Your task to perform on an android device: see sites visited before in the chrome app Image 0: 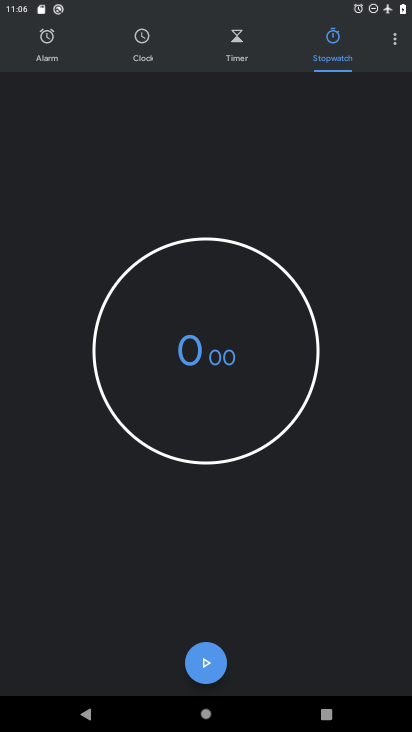
Step 0: press home button
Your task to perform on an android device: see sites visited before in the chrome app Image 1: 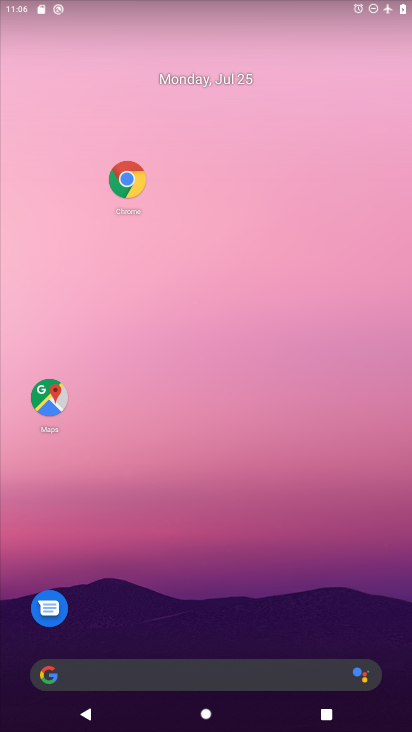
Step 1: drag from (149, 713) to (304, 52)
Your task to perform on an android device: see sites visited before in the chrome app Image 2: 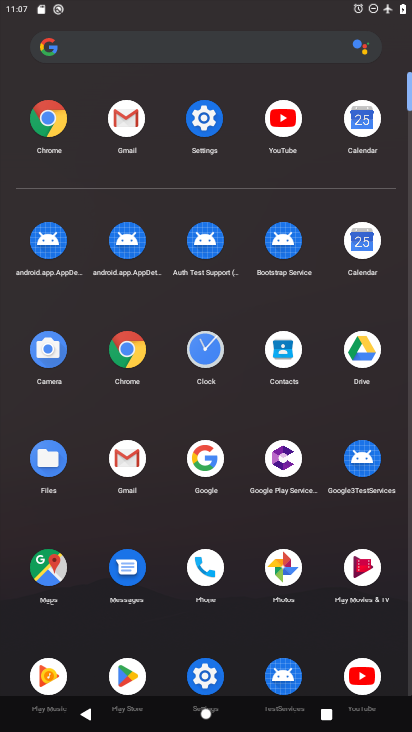
Step 2: click (63, 123)
Your task to perform on an android device: see sites visited before in the chrome app Image 3: 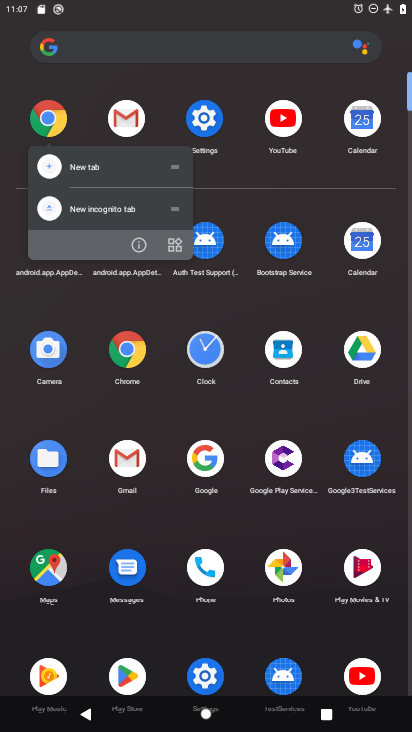
Step 3: click (63, 123)
Your task to perform on an android device: see sites visited before in the chrome app Image 4: 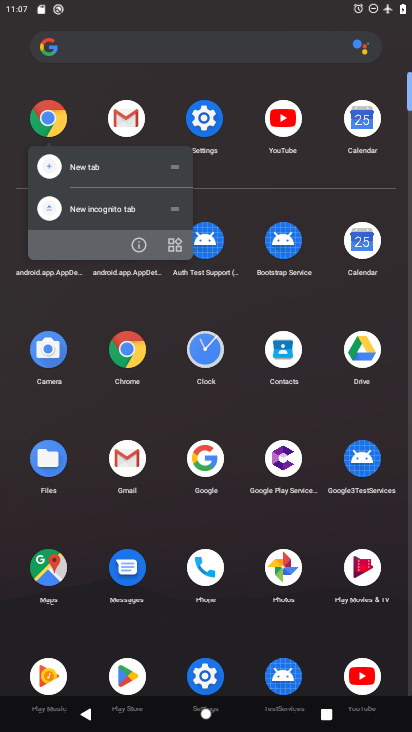
Step 4: click (63, 123)
Your task to perform on an android device: see sites visited before in the chrome app Image 5: 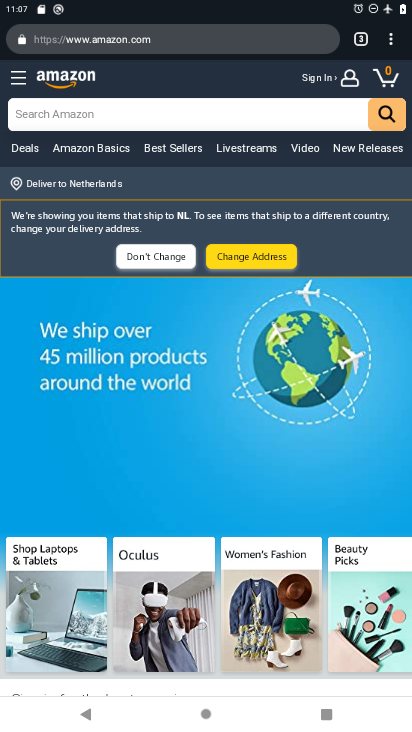
Step 5: click (393, 43)
Your task to perform on an android device: see sites visited before in the chrome app Image 6: 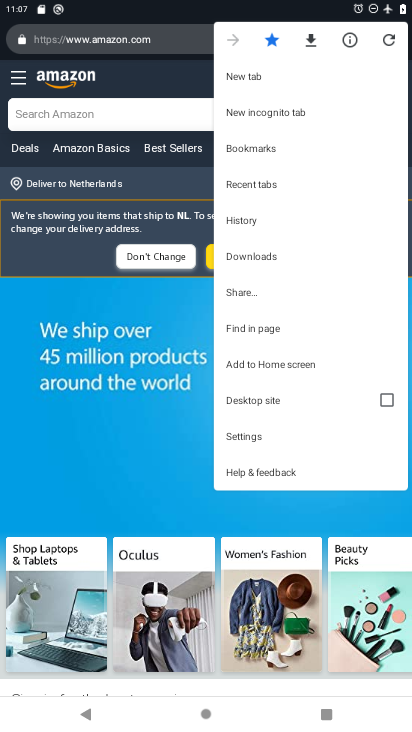
Step 6: click (254, 184)
Your task to perform on an android device: see sites visited before in the chrome app Image 7: 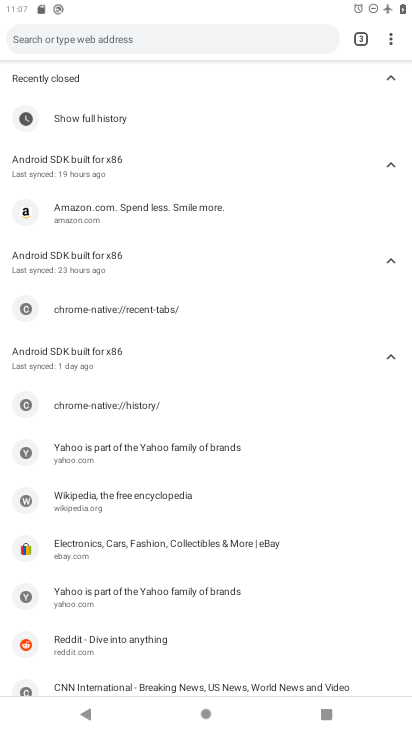
Step 7: task complete